Your task to perform on an android device: see creations saved in the google photos Image 0: 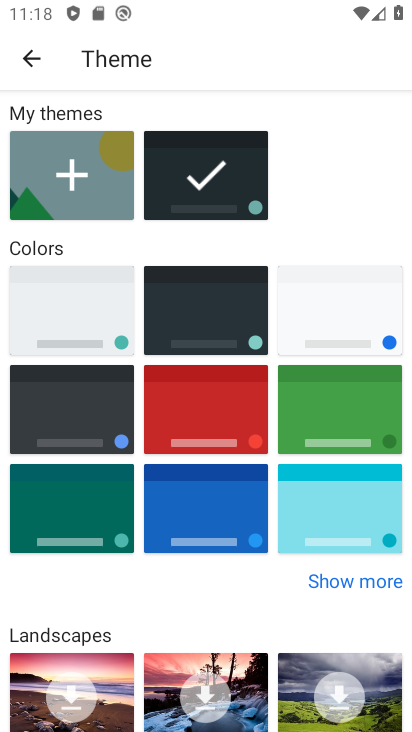
Step 0: press home button
Your task to perform on an android device: see creations saved in the google photos Image 1: 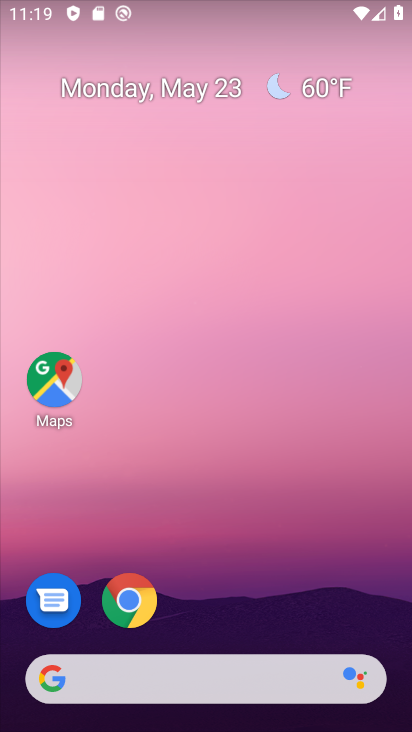
Step 1: drag from (271, 700) to (260, 193)
Your task to perform on an android device: see creations saved in the google photos Image 2: 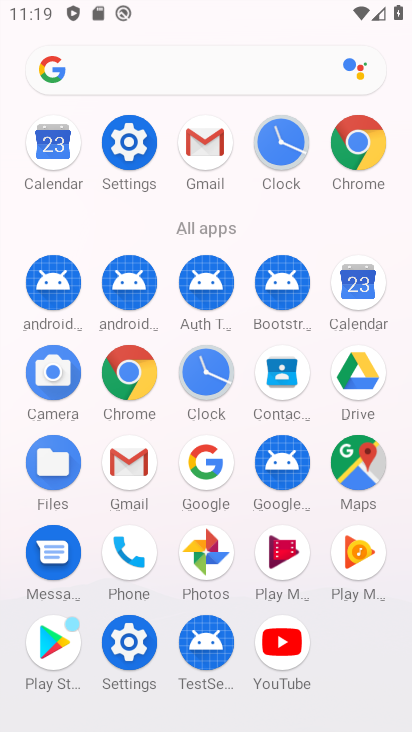
Step 2: click (202, 561)
Your task to perform on an android device: see creations saved in the google photos Image 3: 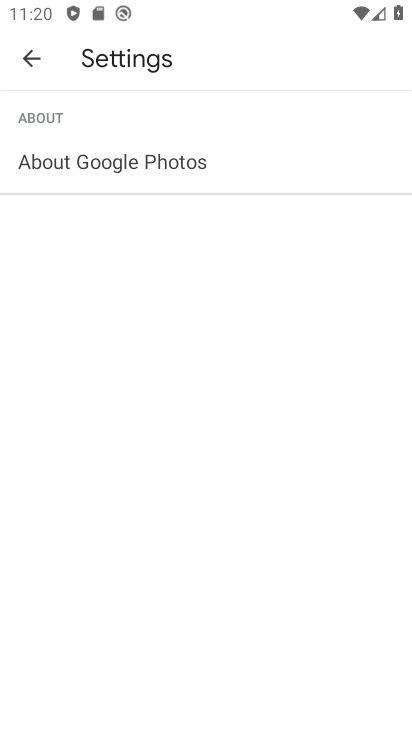
Step 3: click (26, 63)
Your task to perform on an android device: see creations saved in the google photos Image 4: 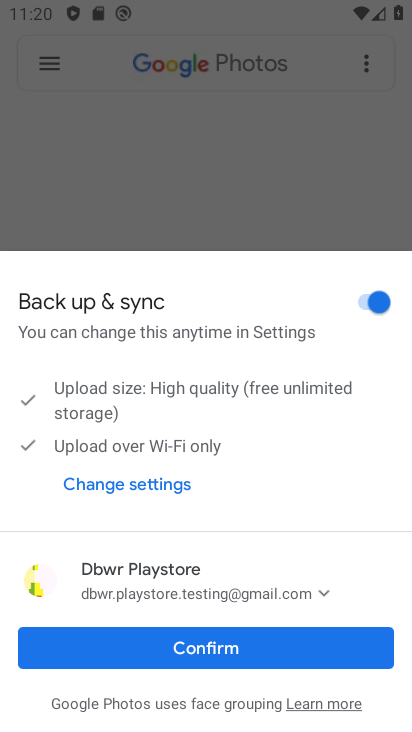
Step 4: click (223, 637)
Your task to perform on an android device: see creations saved in the google photos Image 5: 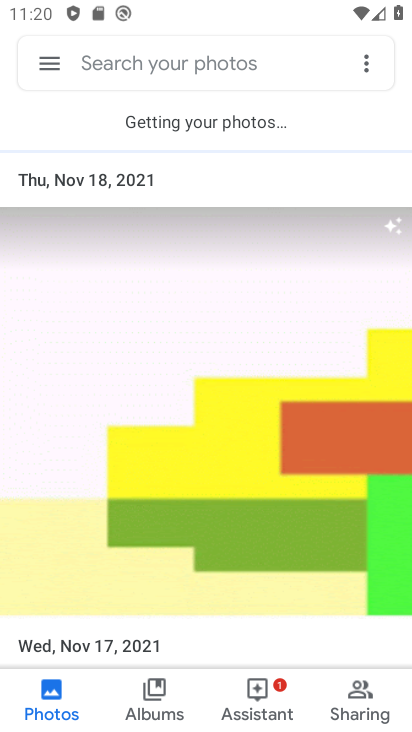
Step 5: task complete